Your task to perform on an android device: Open Yahoo.com Image 0: 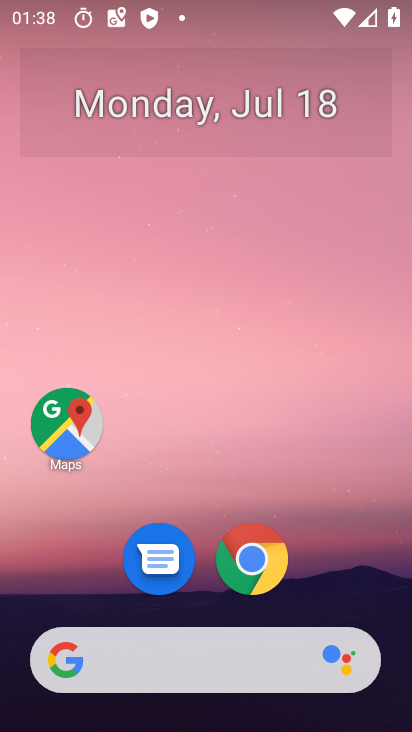
Step 0: click (263, 552)
Your task to perform on an android device: Open Yahoo.com Image 1: 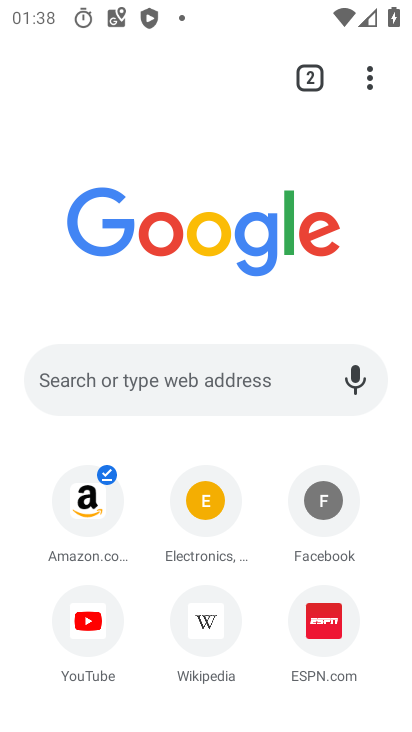
Step 1: drag from (224, 606) to (238, 695)
Your task to perform on an android device: Open Yahoo.com Image 2: 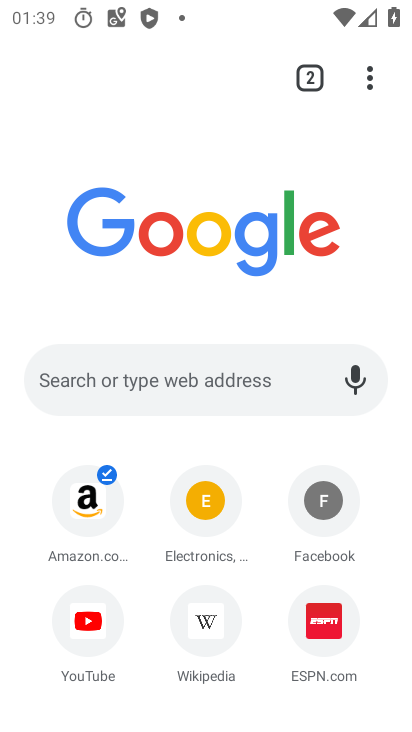
Step 2: click (144, 373)
Your task to perform on an android device: Open Yahoo.com Image 3: 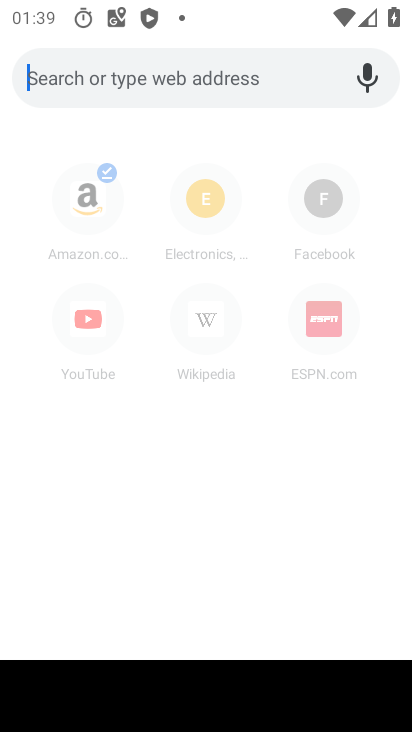
Step 3: type "yahoo.com"
Your task to perform on an android device: Open Yahoo.com Image 4: 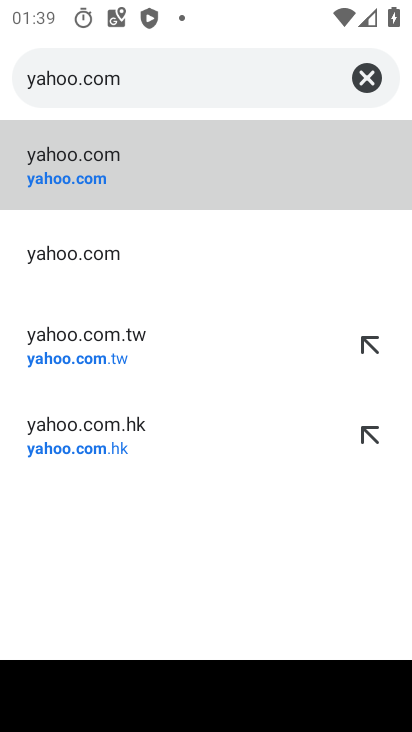
Step 4: click (138, 175)
Your task to perform on an android device: Open Yahoo.com Image 5: 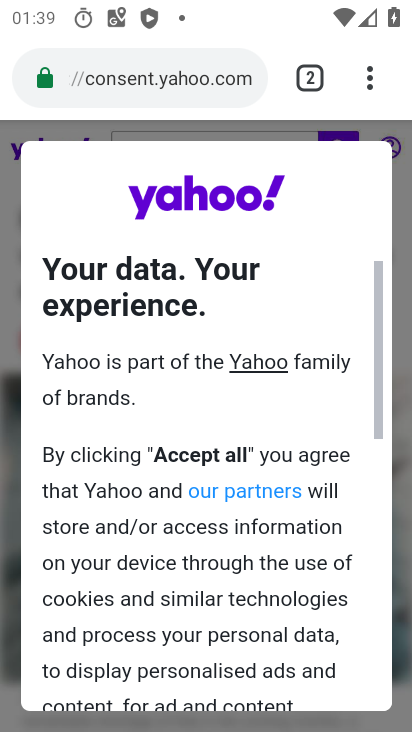
Step 5: task complete